Your task to perform on an android device: set an alarm Image 0: 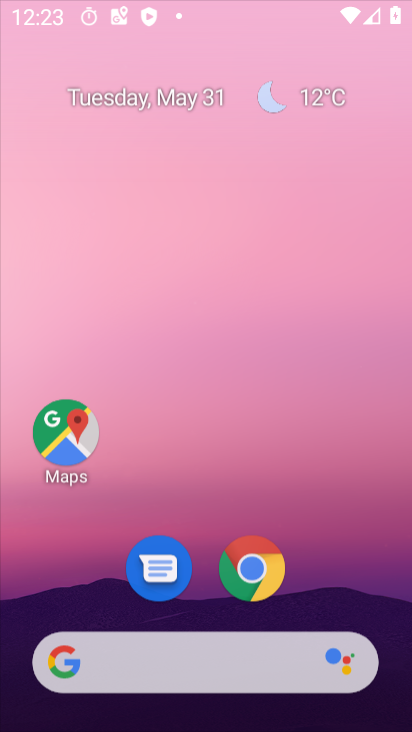
Step 0: click (299, 109)
Your task to perform on an android device: set an alarm Image 1: 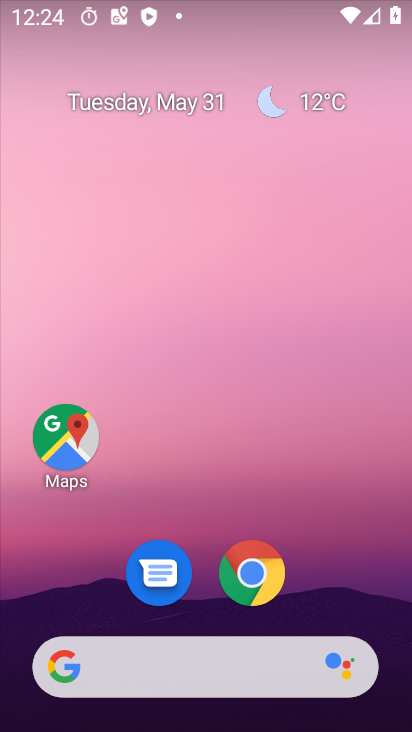
Step 1: drag from (382, 591) to (307, 22)
Your task to perform on an android device: set an alarm Image 2: 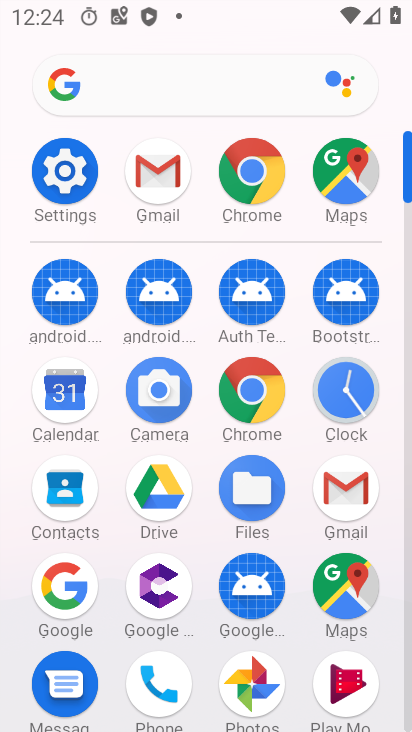
Step 2: click (348, 416)
Your task to perform on an android device: set an alarm Image 3: 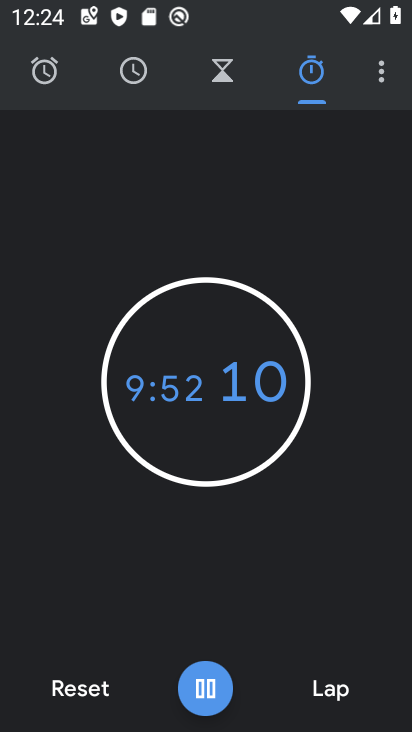
Step 3: click (38, 90)
Your task to perform on an android device: set an alarm Image 4: 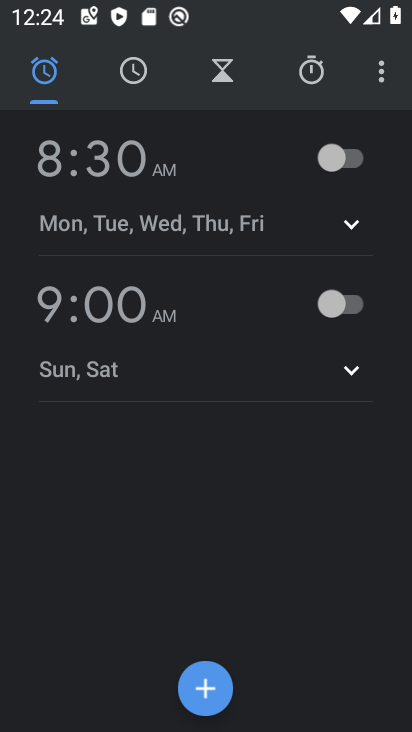
Step 4: click (335, 163)
Your task to perform on an android device: set an alarm Image 5: 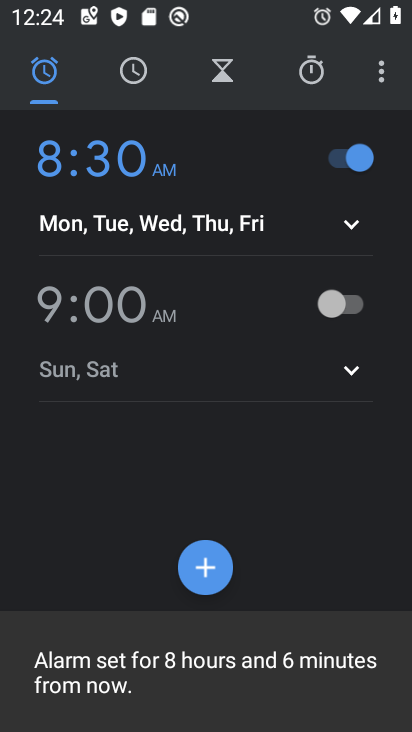
Step 5: task complete